Your task to perform on an android device: check the backup settings in the google photos Image 0: 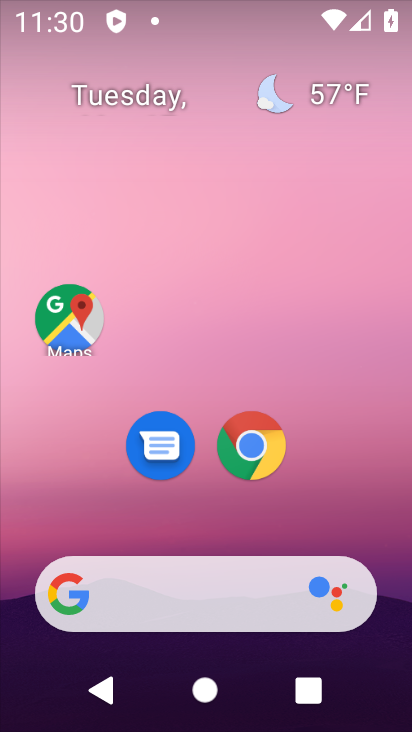
Step 0: drag from (366, 527) to (385, 708)
Your task to perform on an android device: check the backup settings in the google photos Image 1: 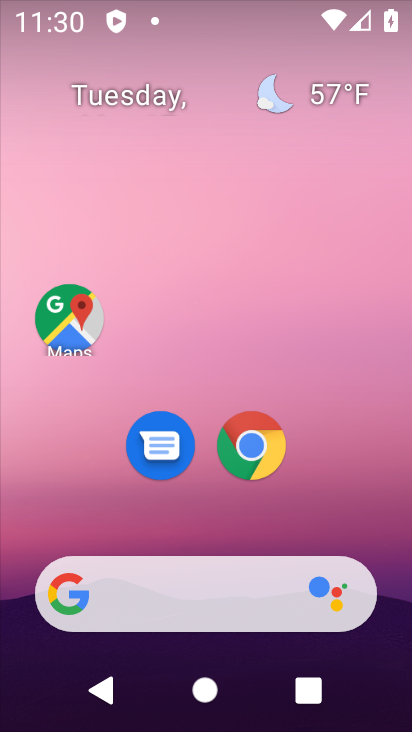
Step 1: drag from (374, 489) to (361, 140)
Your task to perform on an android device: check the backup settings in the google photos Image 2: 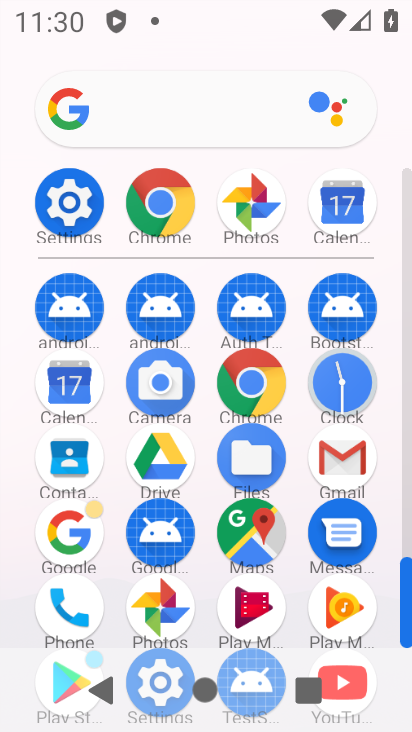
Step 2: click (275, 211)
Your task to perform on an android device: check the backup settings in the google photos Image 3: 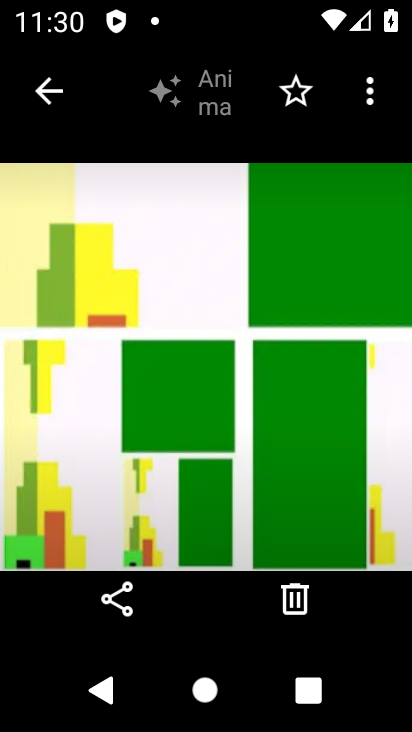
Step 3: click (54, 106)
Your task to perform on an android device: check the backup settings in the google photos Image 4: 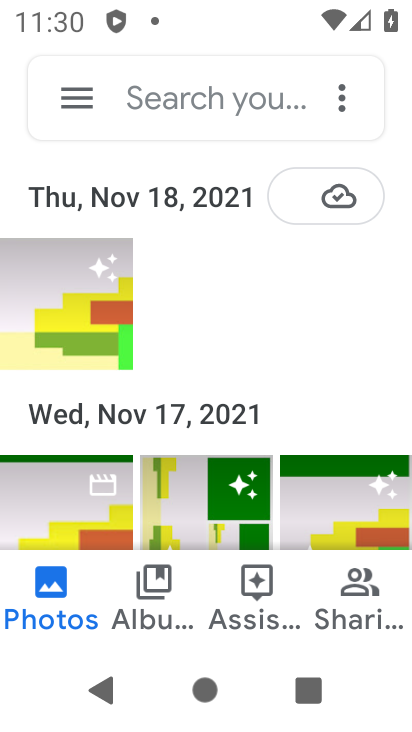
Step 4: click (86, 97)
Your task to perform on an android device: check the backup settings in the google photos Image 5: 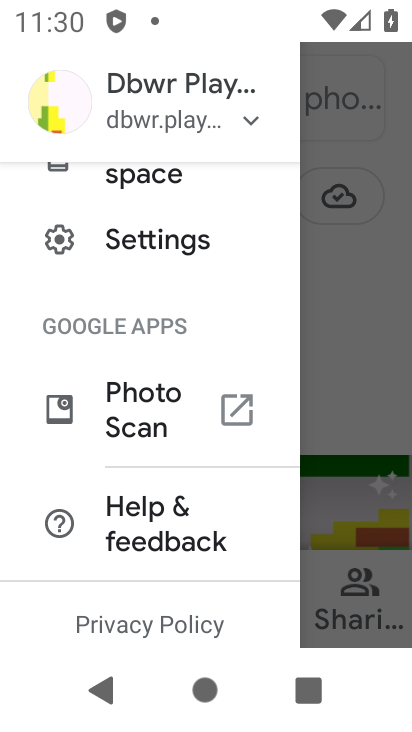
Step 5: drag from (206, 505) to (218, 308)
Your task to perform on an android device: check the backup settings in the google photos Image 6: 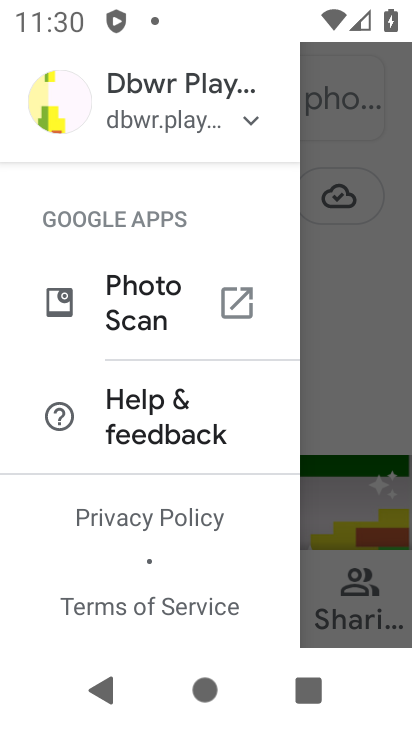
Step 6: drag from (208, 531) to (215, 320)
Your task to perform on an android device: check the backup settings in the google photos Image 7: 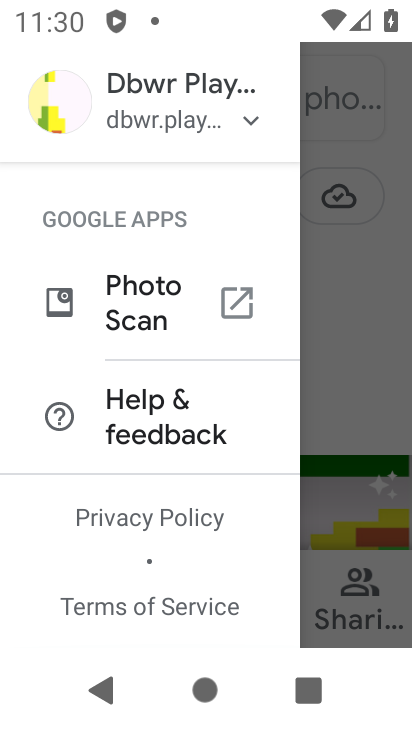
Step 7: drag from (200, 231) to (177, 404)
Your task to perform on an android device: check the backup settings in the google photos Image 8: 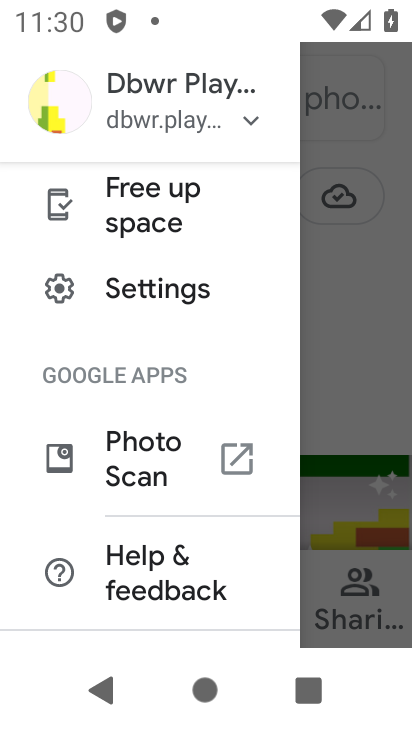
Step 8: click (180, 293)
Your task to perform on an android device: check the backup settings in the google photos Image 9: 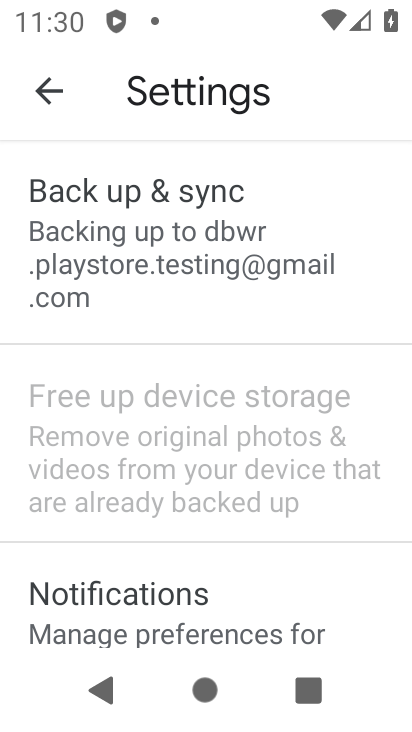
Step 9: click (207, 257)
Your task to perform on an android device: check the backup settings in the google photos Image 10: 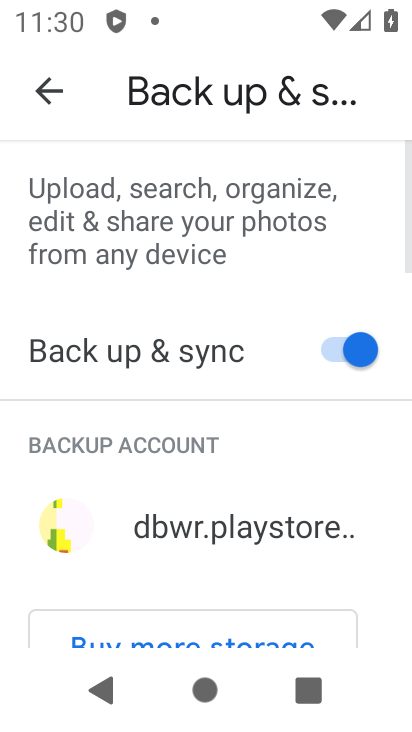
Step 10: task complete